Your task to perform on an android device: Go to Android settings Image 0: 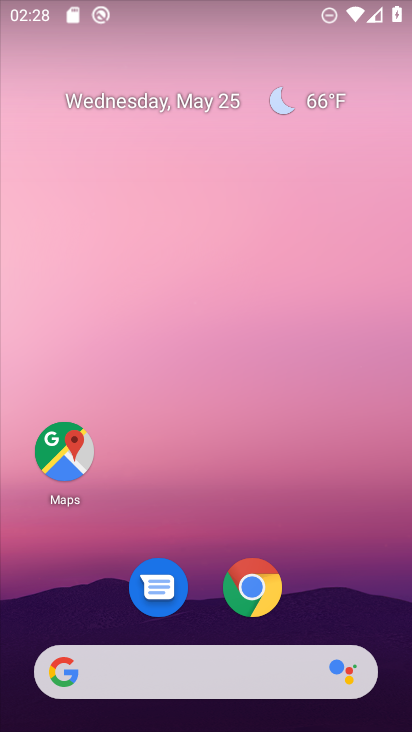
Step 0: drag from (383, 611) to (382, 160)
Your task to perform on an android device: Go to Android settings Image 1: 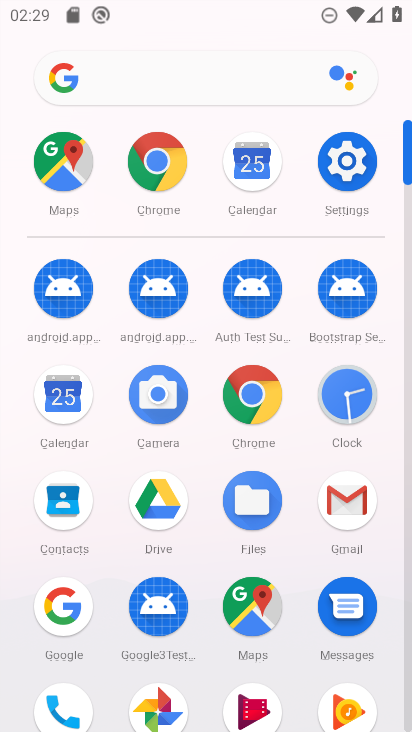
Step 1: click (367, 172)
Your task to perform on an android device: Go to Android settings Image 2: 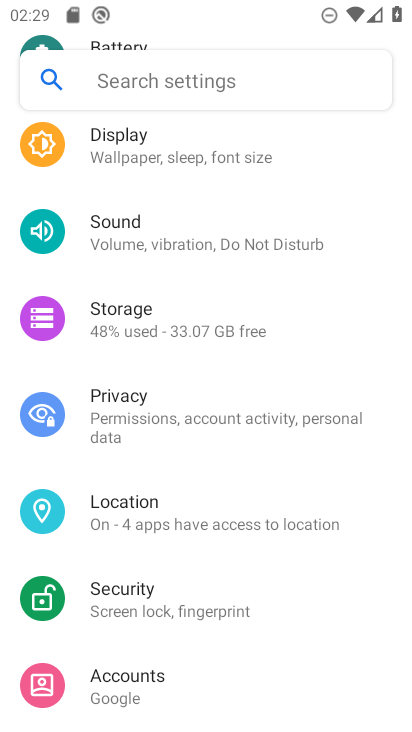
Step 2: drag from (366, 272) to (367, 362)
Your task to perform on an android device: Go to Android settings Image 3: 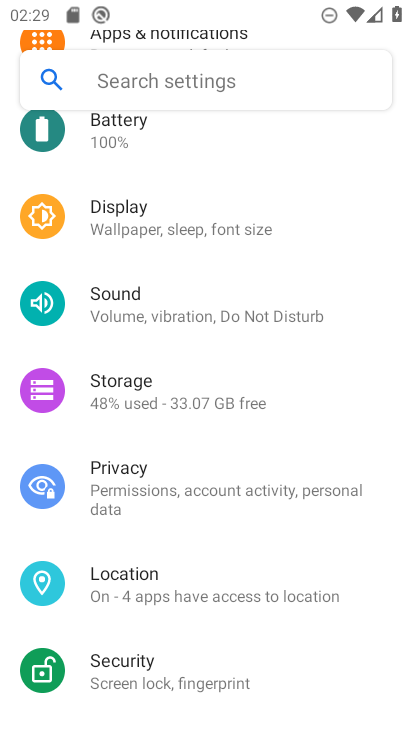
Step 3: drag from (349, 181) to (351, 294)
Your task to perform on an android device: Go to Android settings Image 4: 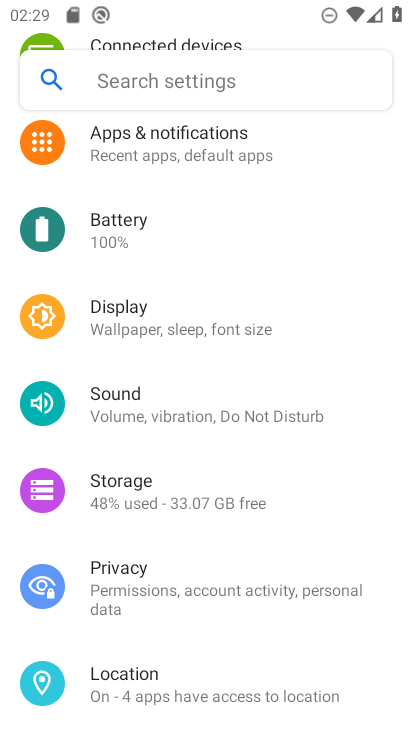
Step 4: drag from (341, 206) to (344, 406)
Your task to perform on an android device: Go to Android settings Image 5: 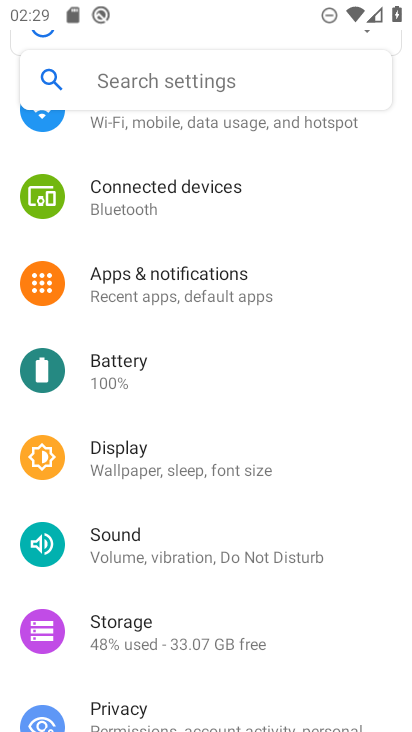
Step 5: drag from (328, 209) to (327, 370)
Your task to perform on an android device: Go to Android settings Image 6: 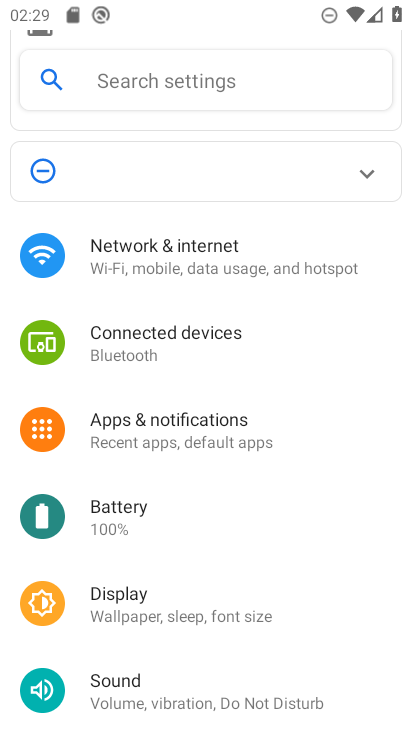
Step 6: drag from (337, 359) to (337, 461)
Your task to perform on an android device: Go to Android settings Image 7: 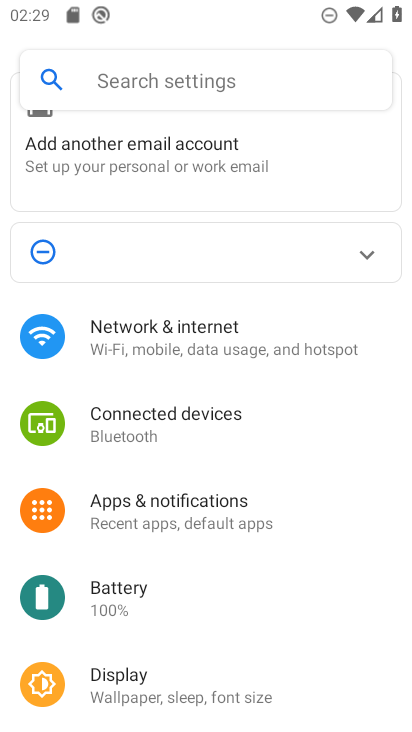
Step 7: drag from (342, 567) to (348, 473)
Your task to perform on an android device: Go to Android settings Image 8: 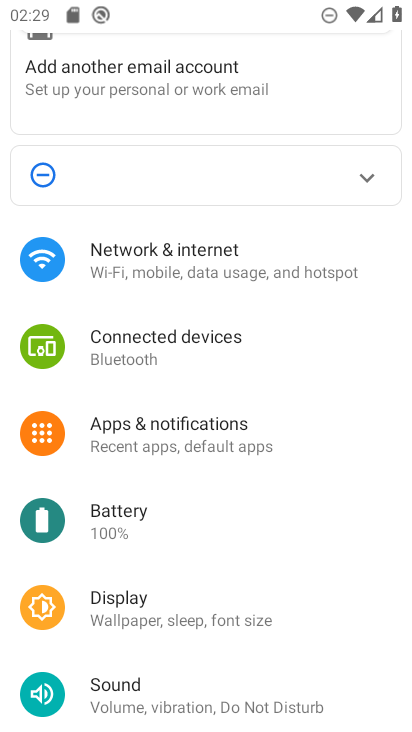
Step 8: drag from (342, 626) to (342, 486)
Your task to perform on an android device: Go to Android settings Image 9: 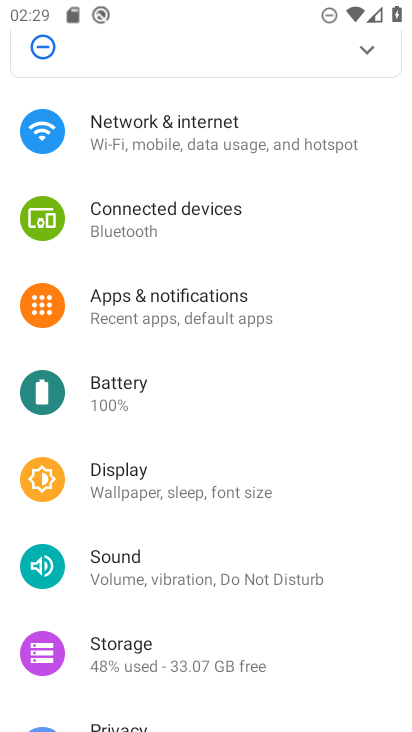
Step 9: drag from (331, 638) to (340, 493)
Your task to perform on an android device: Go to Android settings Image 10: 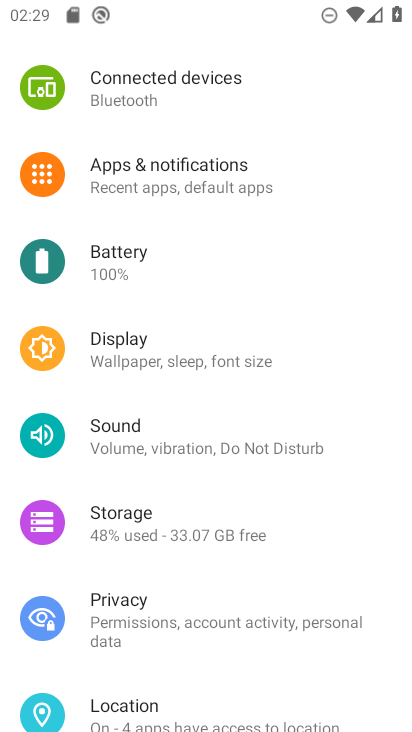
Step 10: drag from (340, 653) to (345, 506)
Your task to perform on an android device: Go to Android settings Image 11: 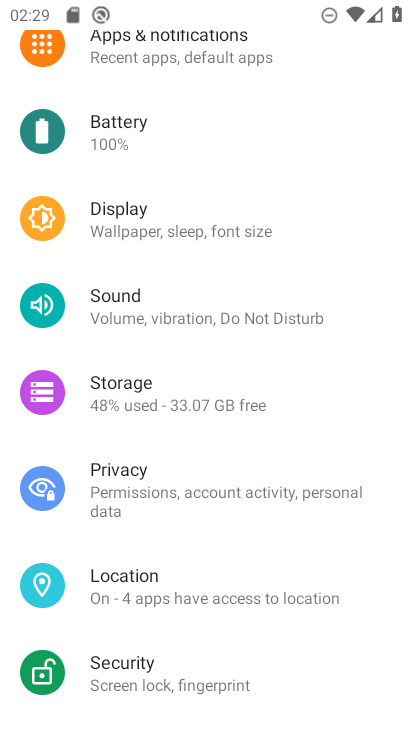
Step 11: drag from (330, 611) to (345, 480)
Your task to perform on an android device: Go to Android settings Image 12: 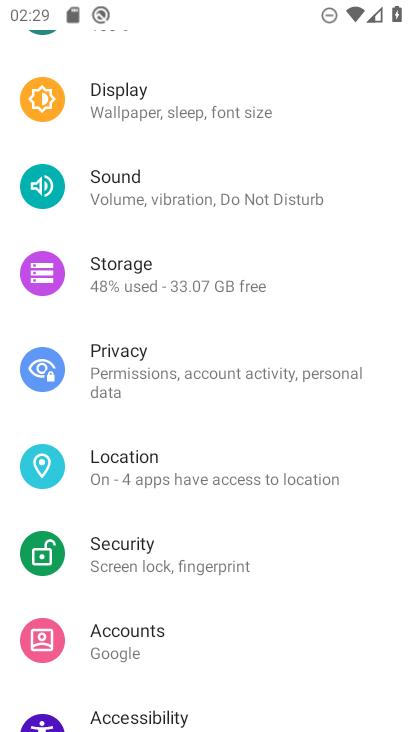
Step 12: drag from (345, 601) to (348, 493)
Your task to perform on an android device: Go to Android settings Image 13: 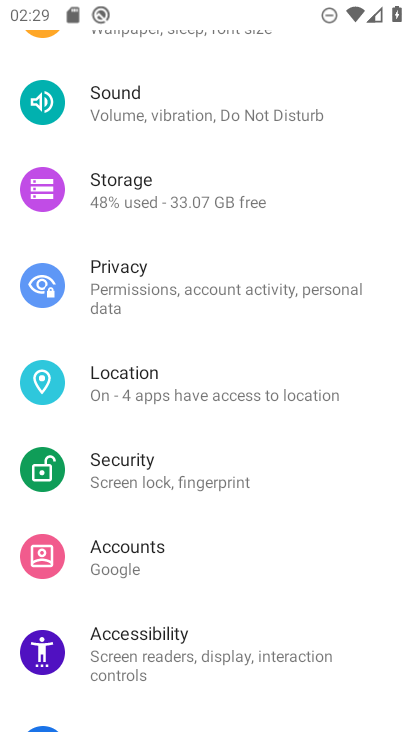
Step 13: drag from (347, 609) to (347, 501)
Your task to perform on an android device: Go to Android settings Image 14: 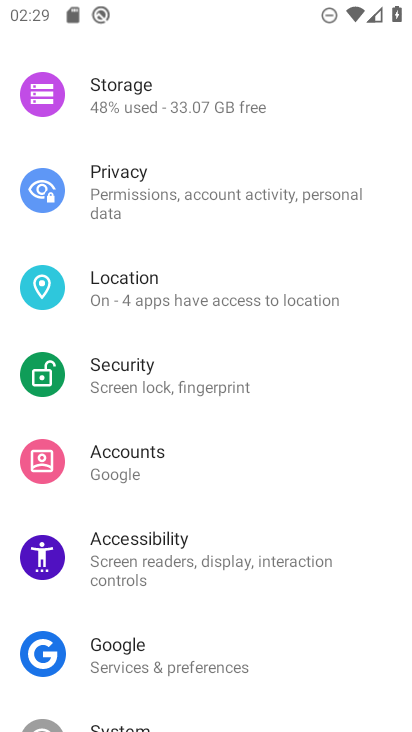
Step 14: drag from (336, 635) to (349, 507)
Your task to perform on an android device: Go to Android settings Image 15: 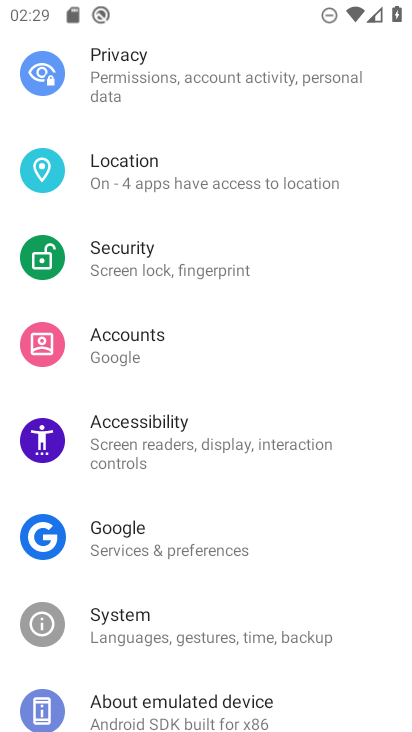
Step 15: drag from (359, 625) to (361, 506)
Your task to perform on an android device: Go to Android settings Image 16: 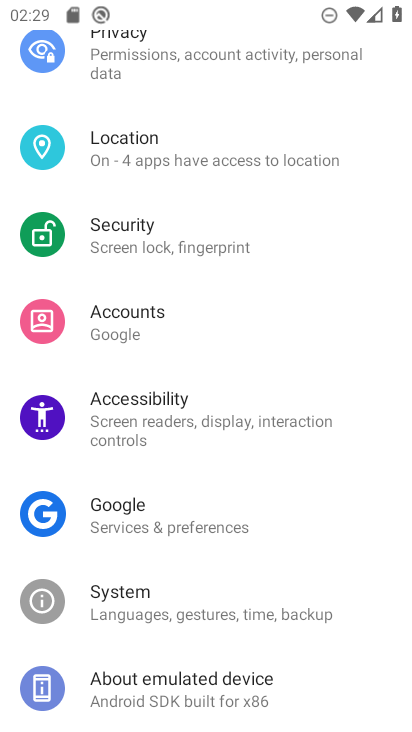
Step 16: click (323, 605)
Your task to perform on an android device: Go to Android settings Image 17: 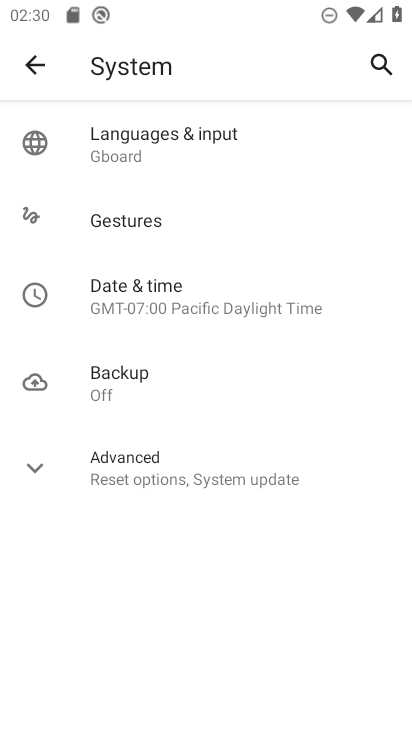
Step 17: click (240, 471)
Your task to perform on an android device: Go to Android settings Image 18: 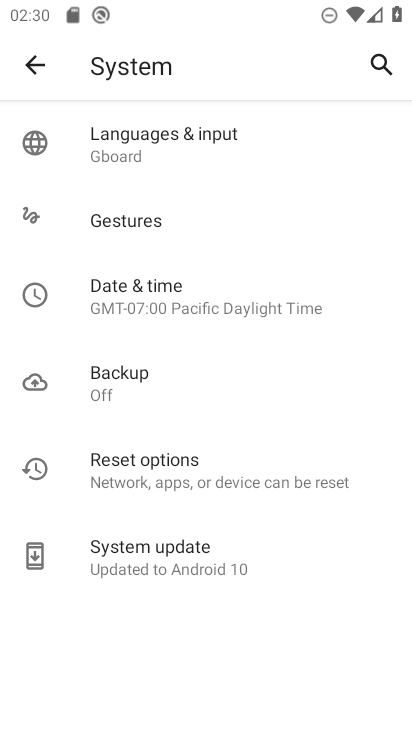
Step 18: task complete